Your task to perform on an android device: Search for seafood restaurants on Google Maps Image 0: 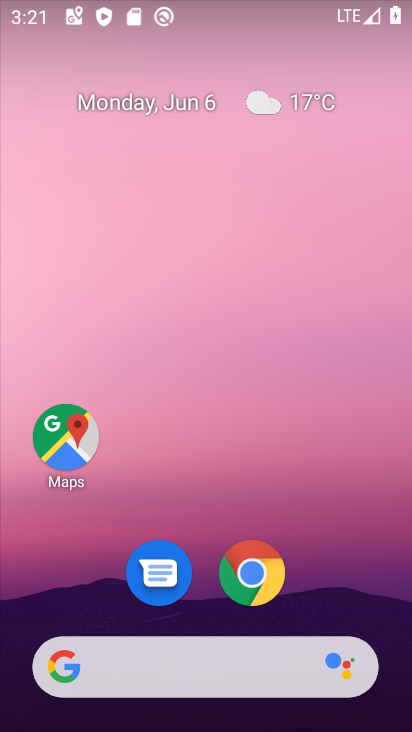
Step 0: drag from (378, 596) to (373, 195)
Your task to perform on an android device: Search for seafood restaurants on Google Maps Image 1: 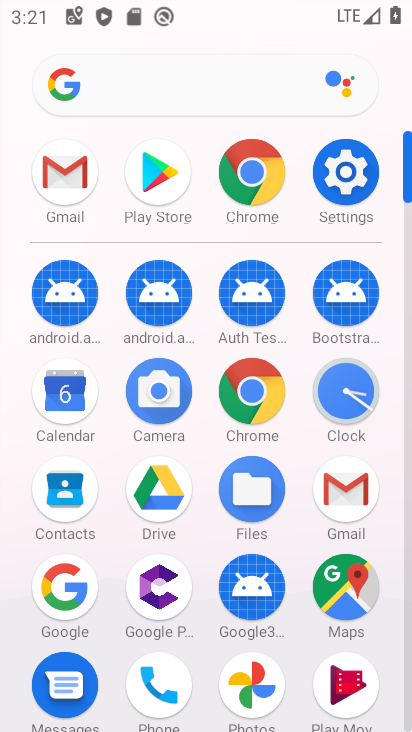
Step 1: click (373, 577)
Your task to perform on an android device: Search for seafood restaurants on Google Maps Image 2: 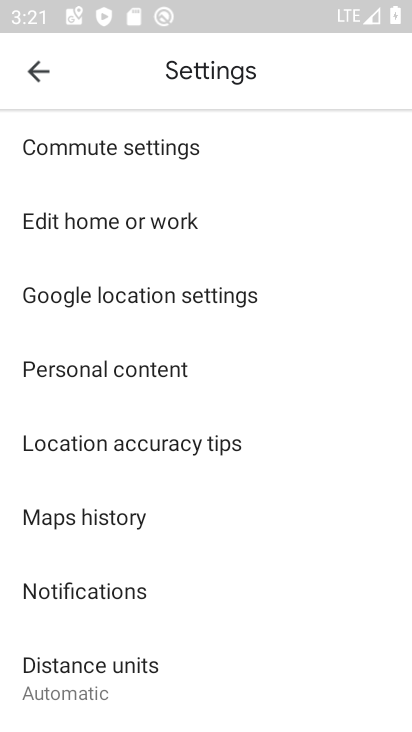
Step 2: press back button
Your task to perform on an android device: Search for seafood restaurants on Google Maps Image 3: 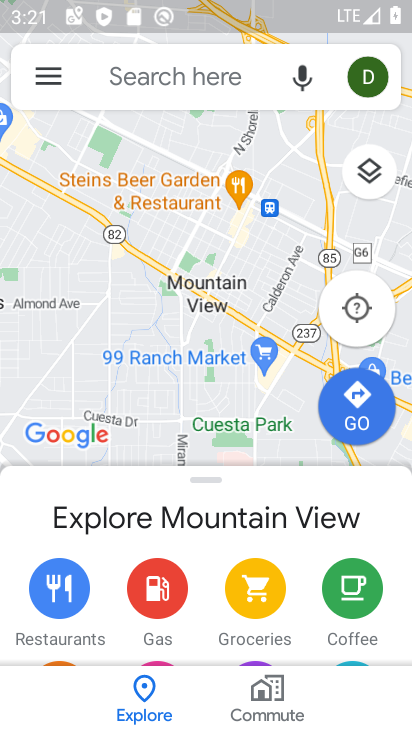
Step 3: click (231, 79)
Your task to perform on an android device: Search for seafood restaurants on Google Maps Image 4: 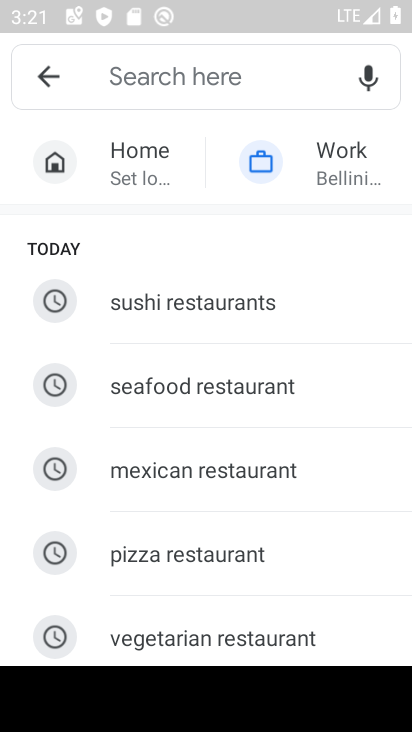
Step 4: type "seafood restaurants"
Your task to perform on an android device: Search for seafood restaurants on Google Maps Image 5: 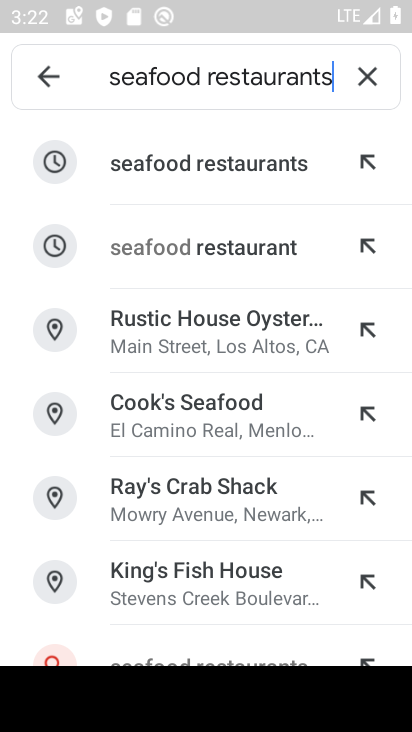
Step 5: click (270, 181)
Your task to perform on an android device: Search for seafood restaurants on Google Maps Image 6: 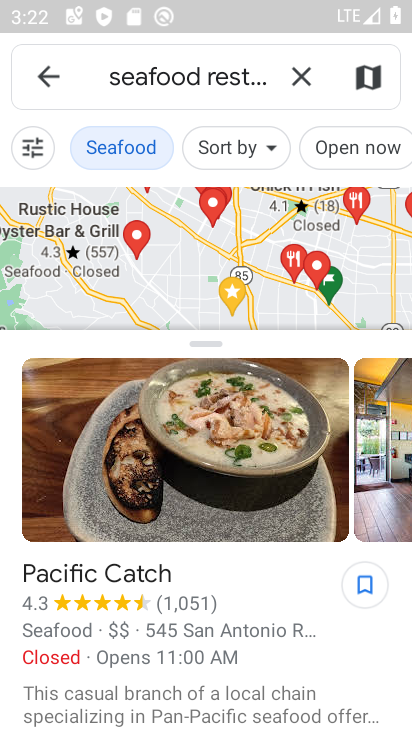
Step 6: task complete